Your task to perform on an android device: turn off data saver in the chrome app Image 0: 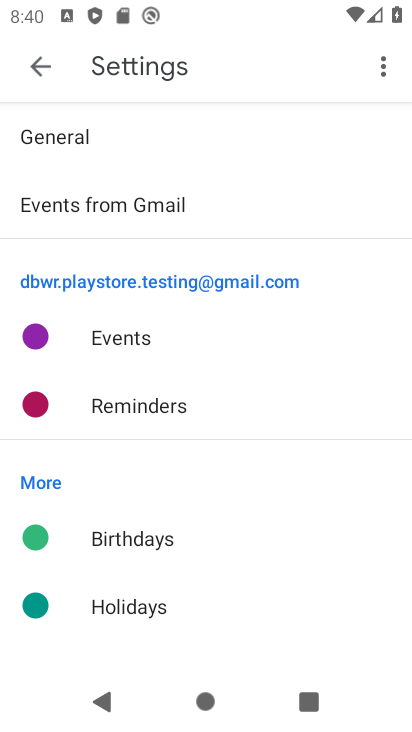
Step 0: press home button
Your task to perform on an android device: turn off data saver in the chrome app Image 1: 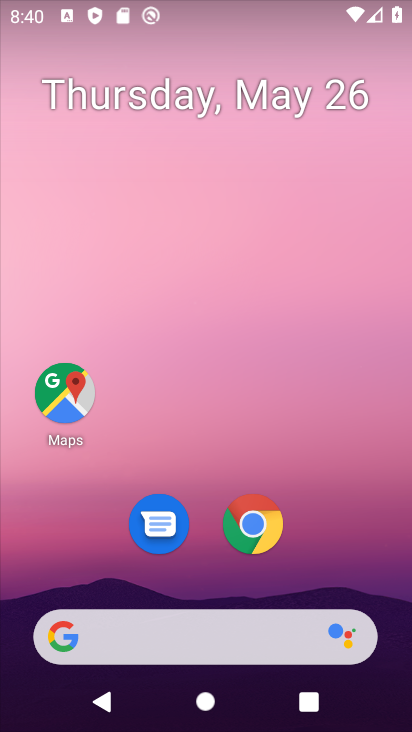
Step 1: click (260, 518)
Your task to perform on an android device: turn off data saver in the chrome app Image 2: 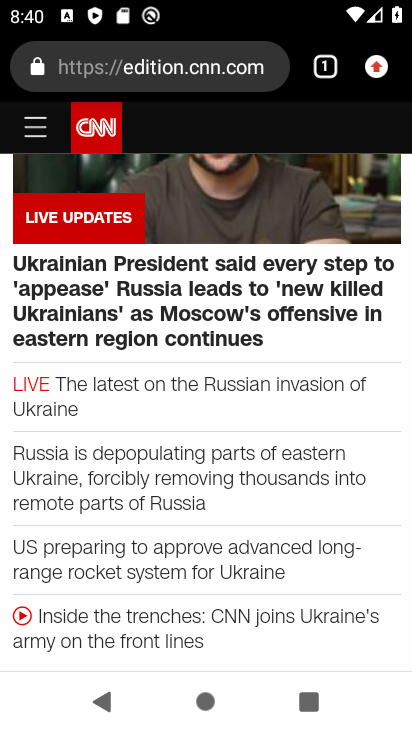
Step 2: click (377, 69)
Your task to perform on an android device: turn off data saver in the chrome app Image 3: 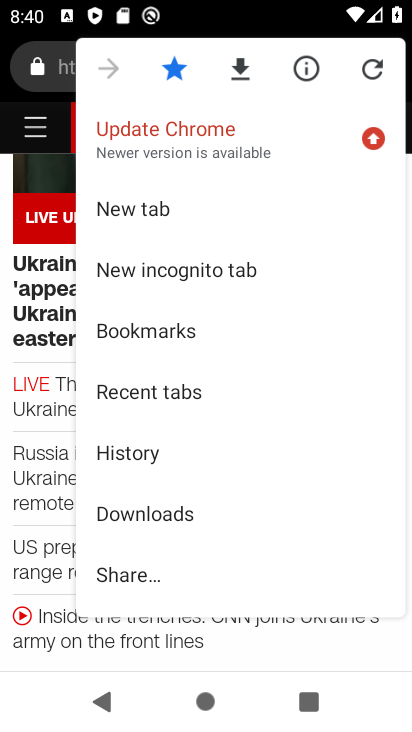
Step 3: drag from (271, 474) to (229, 198)
Your task to perform on an android device: turn off data saver in the chrome app Image 4: 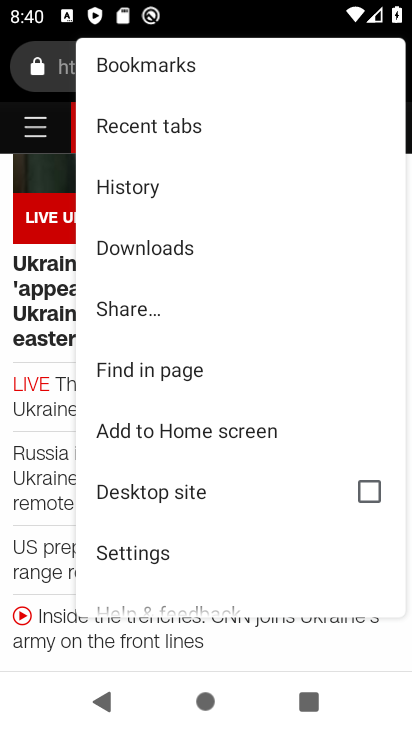
Step 4: click (195, 549)
Your task to perform on an android device: turn off data saver in the chrome app Image 5: 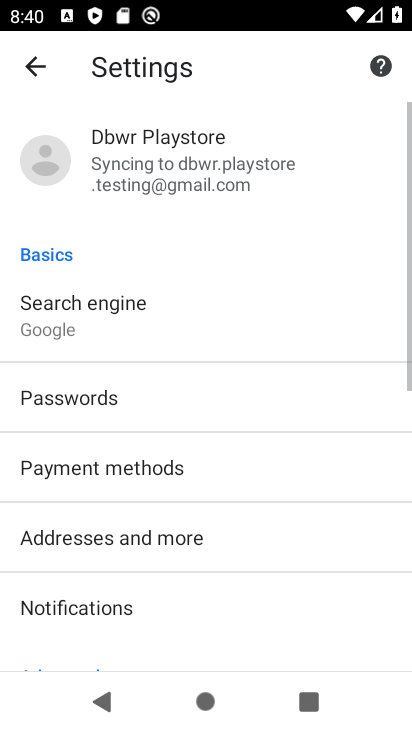
Step 5: drag from (260, 580) to (215, 195)
Your task to perform on an android device: turn off data saver in the chrome app Image 6: 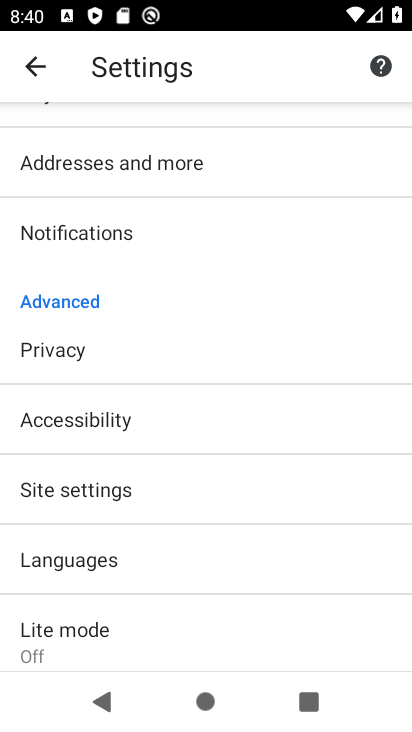
Step 6: click (179, 639)
Your task to perform on an android device: turn off data saver in the chrome app Image 7: 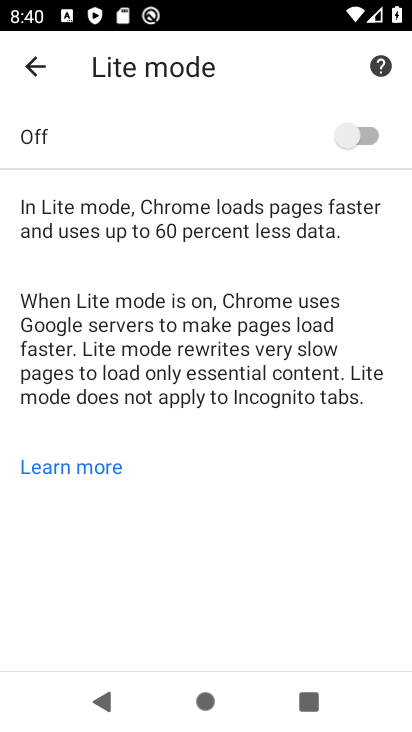
Step 7: task complete